Your task to perform on an android device: open chrome privacy settings Image 0: 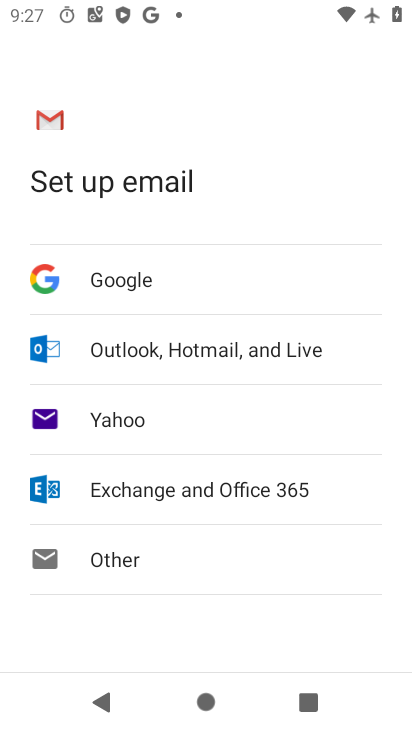
Step 0: press home button
Your task to perform on an android device: open chrome privacy settings Image 1: 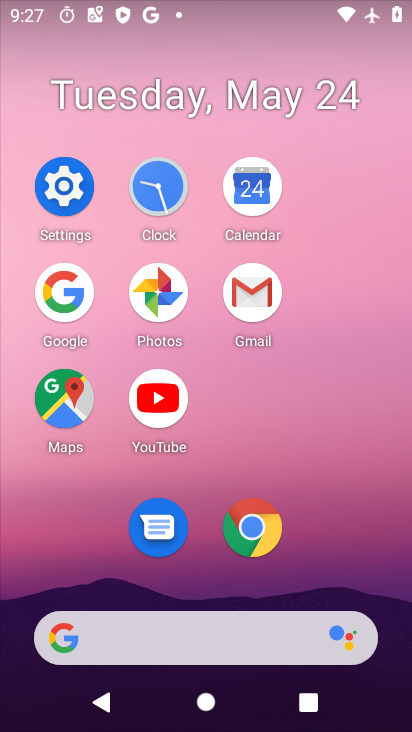
Step 1: click (281, 527)
Your task to perform on an android device: open chrome privacy settings Image 2: 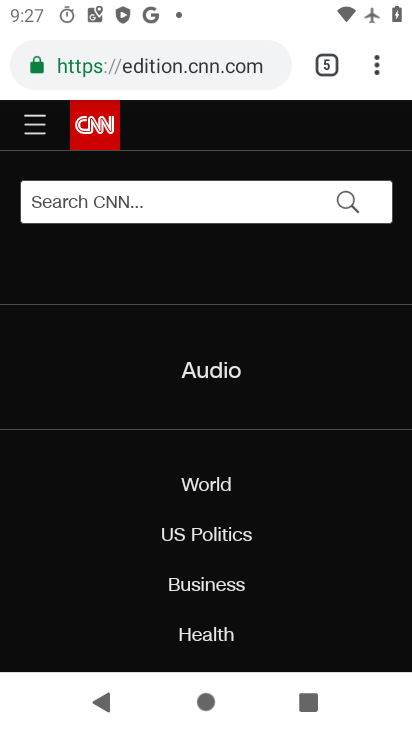
Step 2: click (368, 78)
Your task to perform on an android device: open chrome privacy settings Image 3: 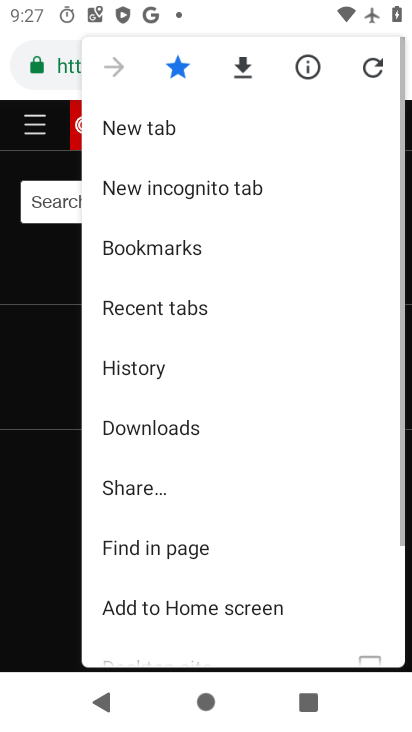
Step 3: drag from (255, 507) to (261, 115)
Your task to perform on an android device: open chrome privacy settings Image 4: 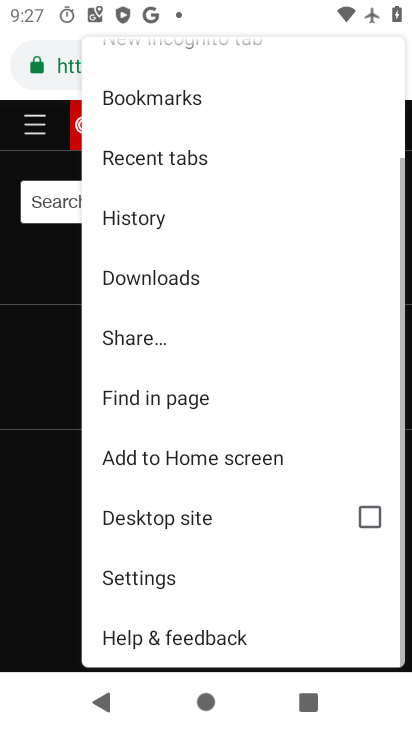
Step 4: click (199, 564)
Your task to perform on an android device: open chrome privacy settings Image 5: 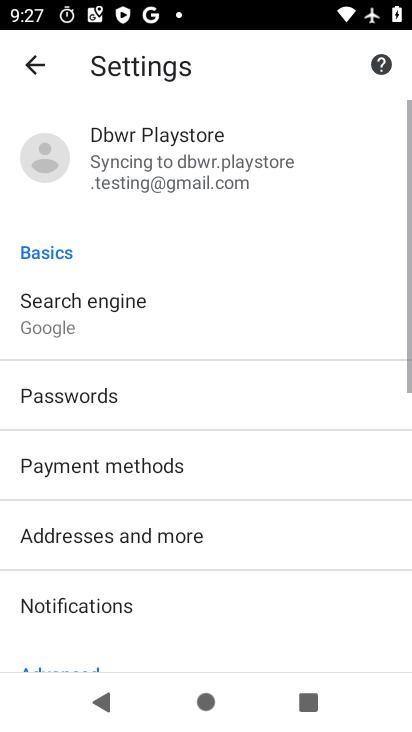
Step 5: drag from (143, 559) to (189, 236)
Your task to perform on an android device: open chrome privacy settings Image 6: 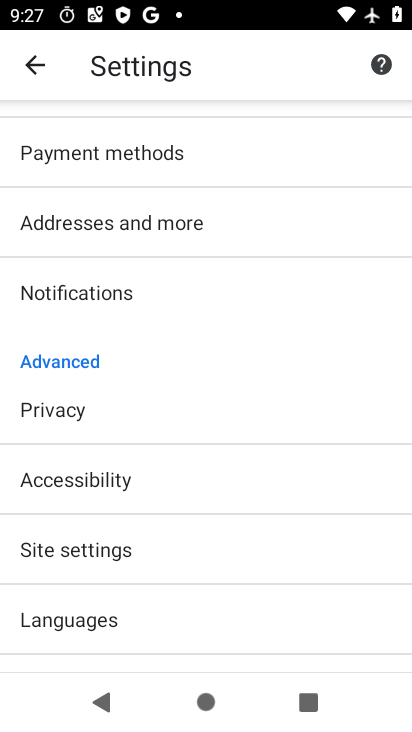
Step 6: click (129, 409)
Your task to perform on an android device: open chrome privacy settings Image 7: 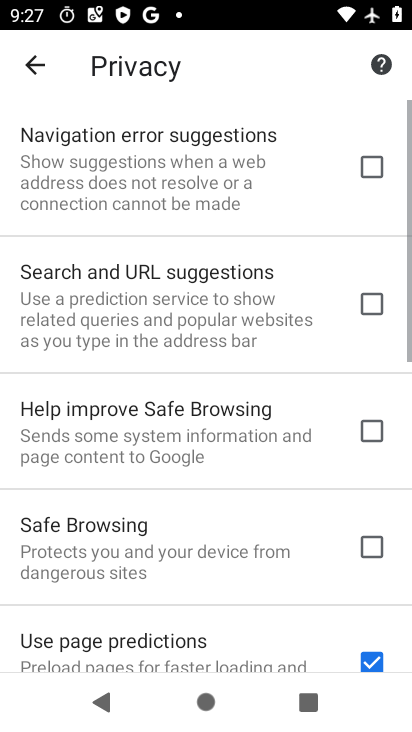
Step 7: task complete